Your task to perform on an android device: Is it going to rain today? Image 0: 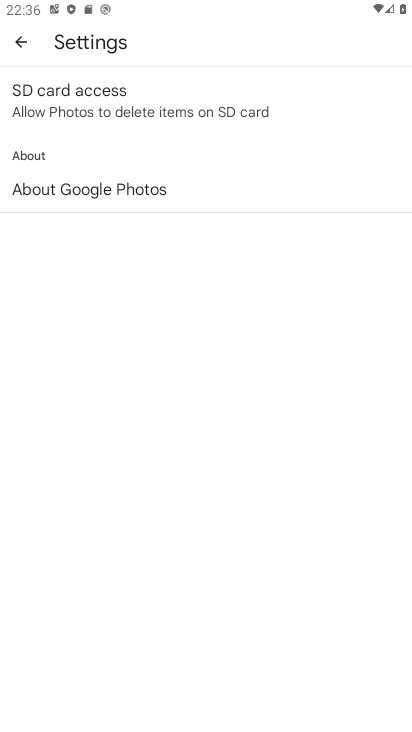
Step 0: press back button
Your task to perform on an android device: Is it going to rain today? Image 1: 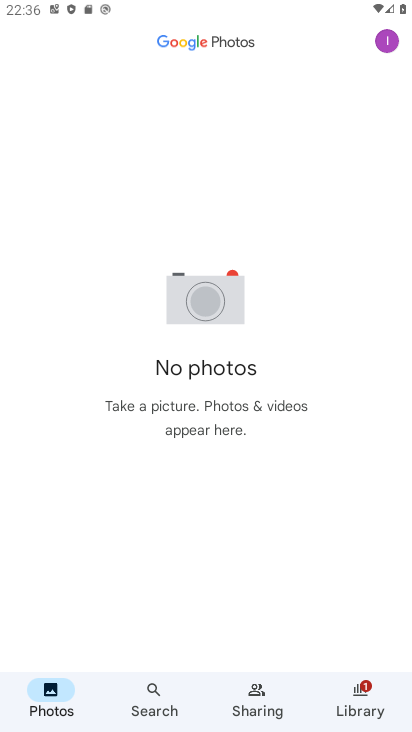
Step 1: press home button
Your task to perform on an android device: Is it going to rain today? Image 2: 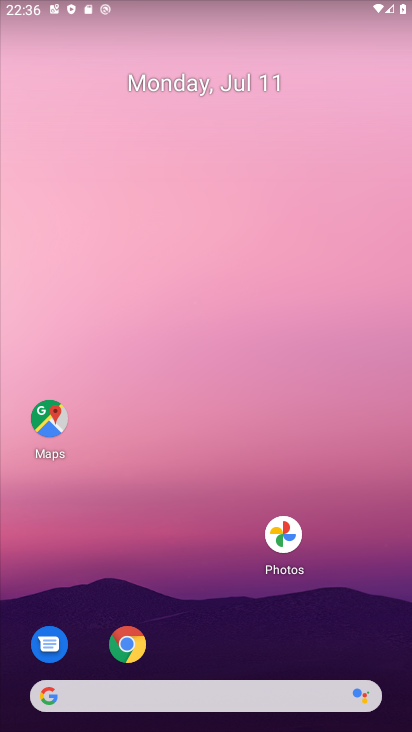
Step 2: press back button
Your task to perform on an android device: Is it going to rain today? Image 3: 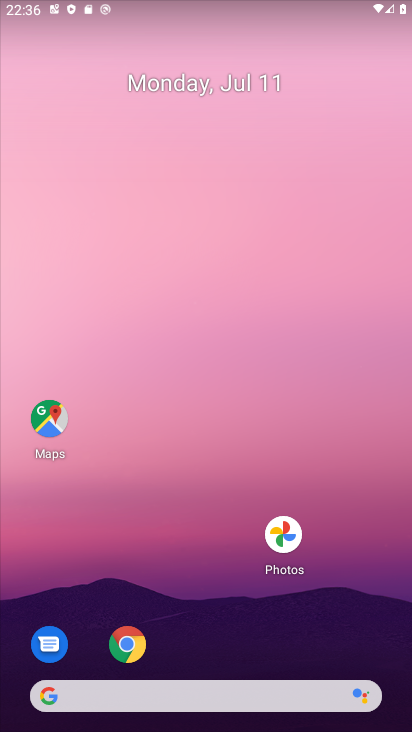
Step 3: drag from (262, 645) to (146, 199)
Your task to perform on an android device: Is it going to rain today? Image 4: 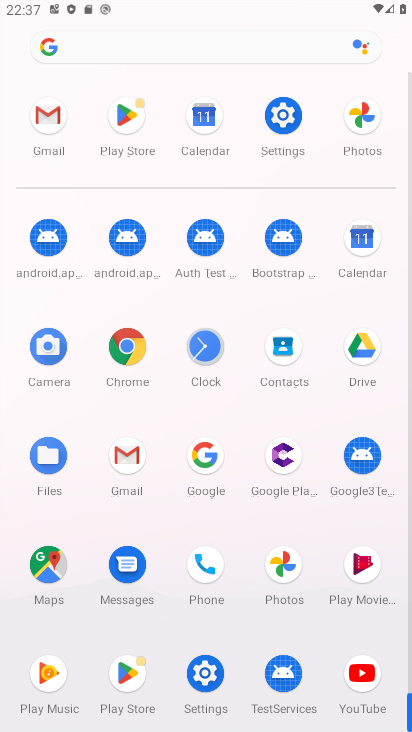
Step 4: click (117, 349)
Your task to perform on an android device: Is it going to rain today? Image 5: 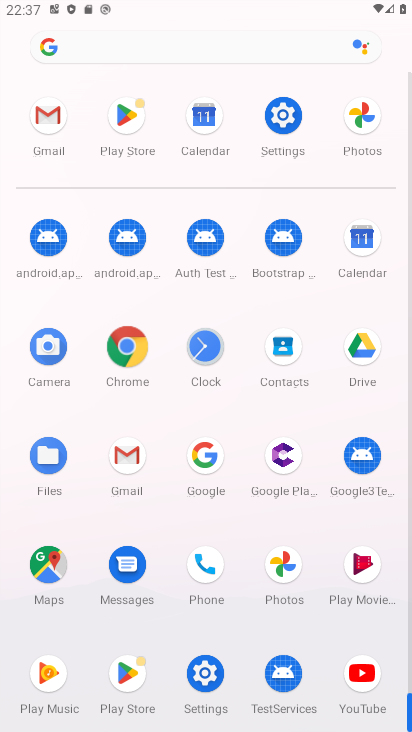
Step 5: click (117, 349)
Your task to perform on an android device: Is it going to rain today? Image 6: 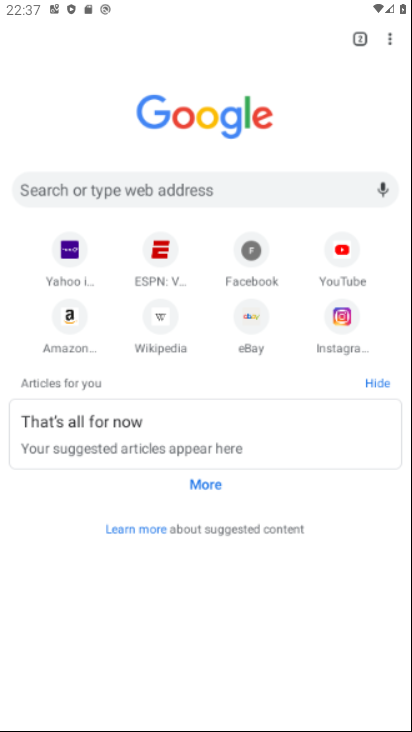
Step 6: click (117, 349)
Your task to perform on an android device: Is it going to rain today? Image 7: 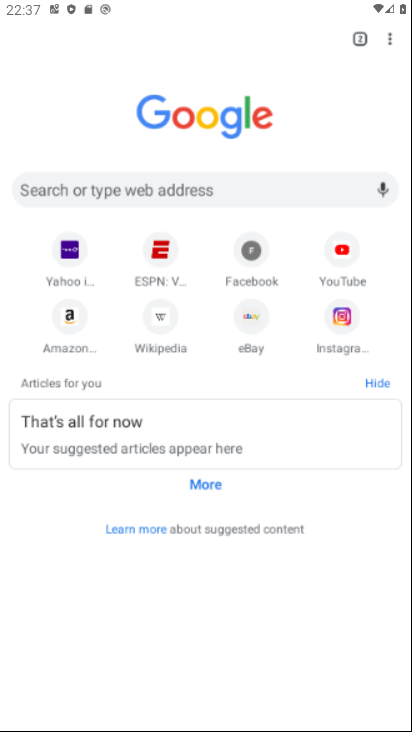
Step 7: click (114, 347)
Your task to perform on an android device: Is it going to rain today? Image 8: 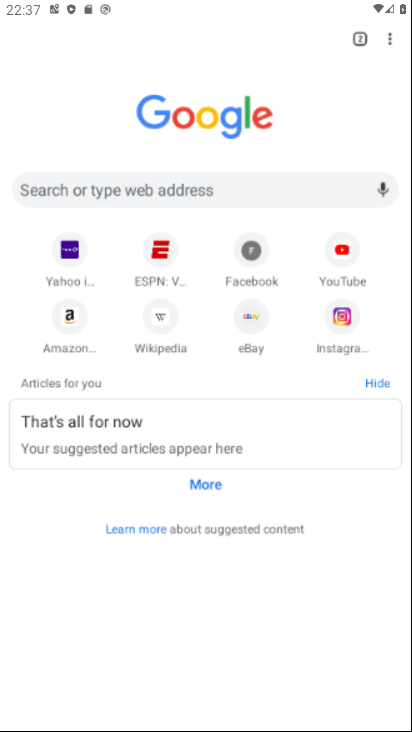
Step 8: click (113, 346)
Your task to perform on an android device: Is it going to rain today? Image 9: 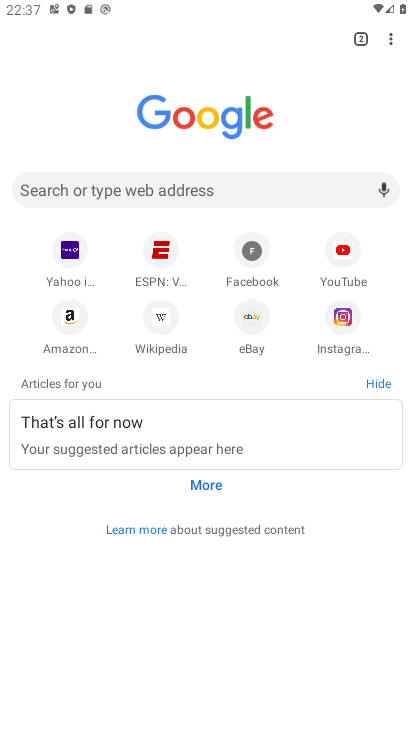
Step 9: click (96, 181)
Your task to perform on an android device: Is it going to rain today? Image 10: 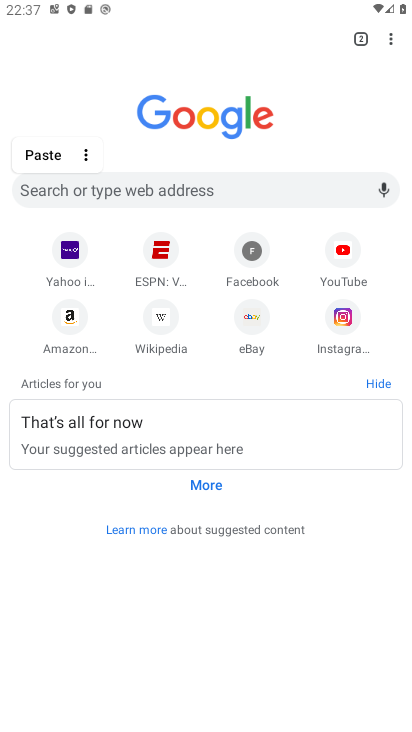
Step 10: type "is it going to rain today"
Your task to perform on an android device: Is it going to rain today? Image 11: 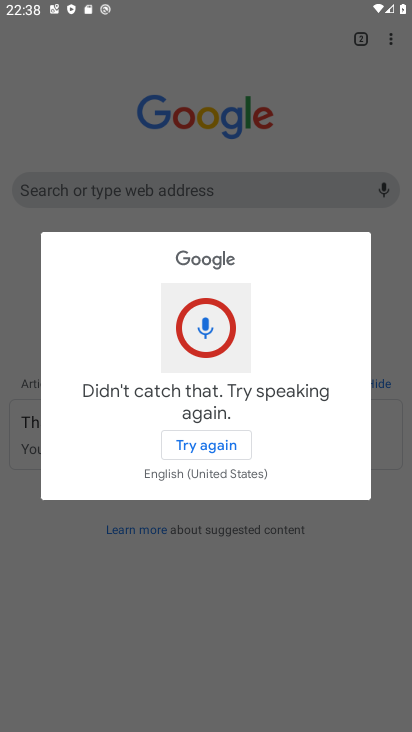
Step 11: click (78, 83)
Your task to perform on an android device: Is it going to rain today? Image 12: 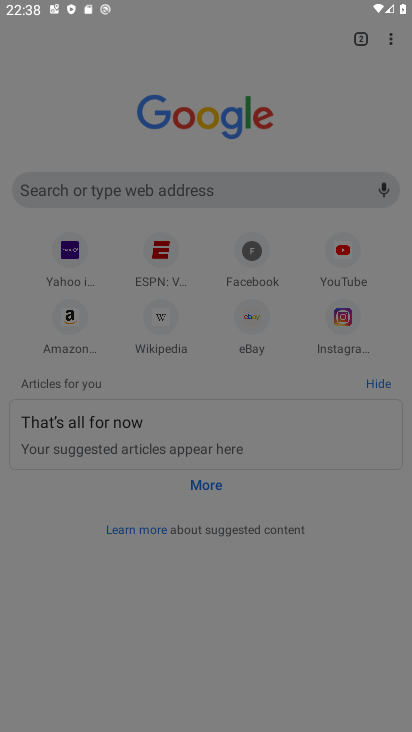
Step 12: click (77, 83)
Your task to perform on an android device: Is it going to rain today? Image 13: 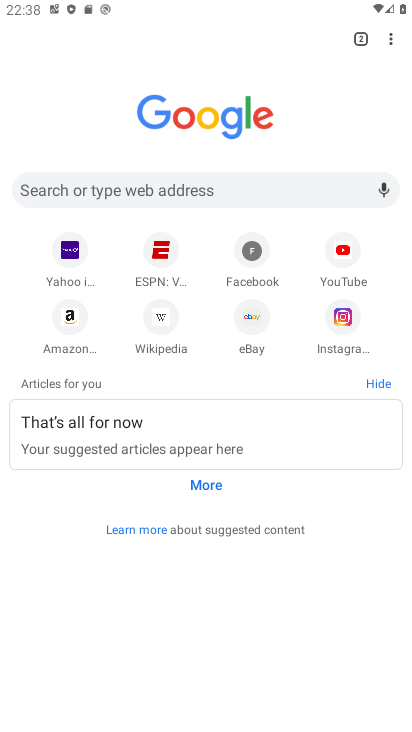
Step 13: click (77, 83)
Your task to perform on an android device: Is it going to rain today? Image 14: 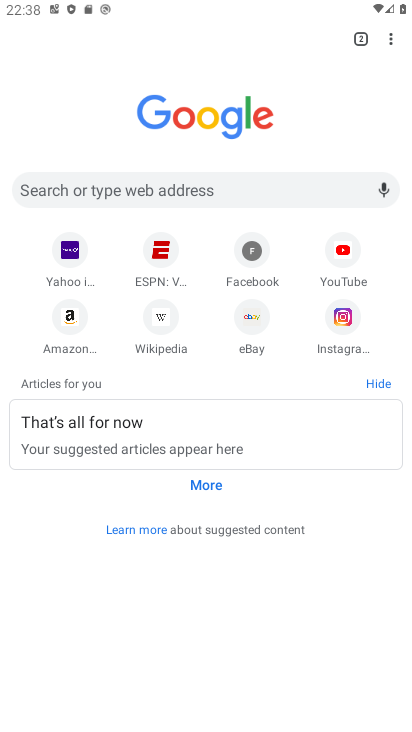
Step 14: click (77, 83)
Your task to perform on an android device: Is it going to rain today? Image 15: 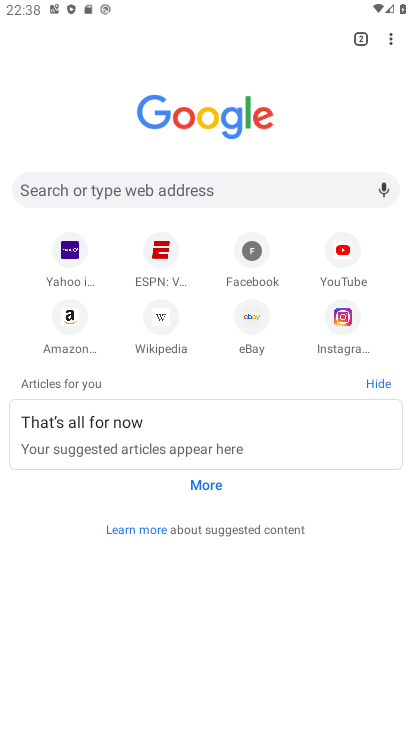
Step 15: click (241, 185)
Your task to perform on an android device: Is it going to rain today? Image 16: 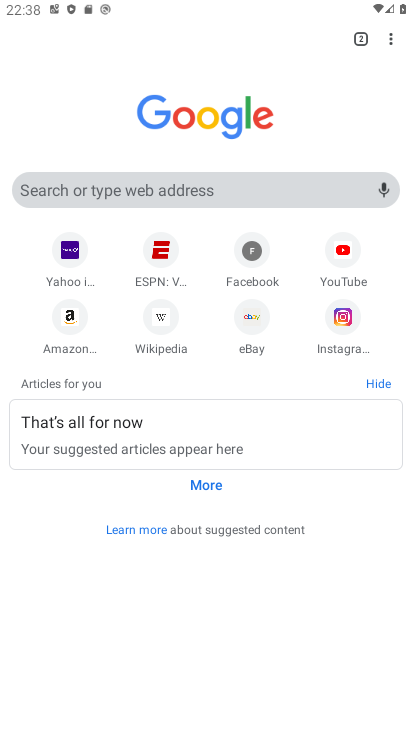
Step 16: click (242, 187)
Your task to perform on an android device: Is it going to rain today? Image 17: 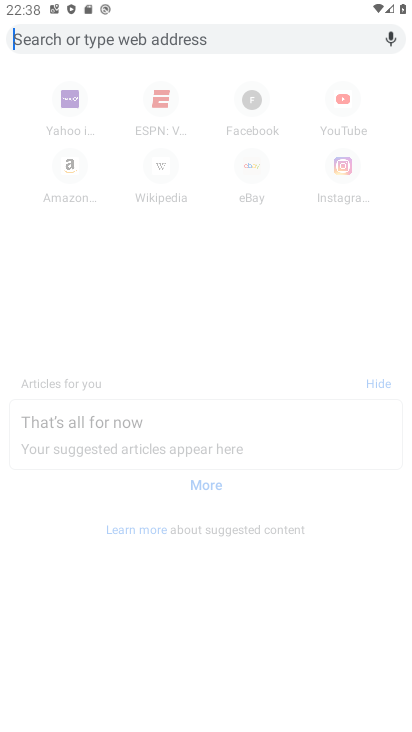
Step 17: click (242, 187)
Your task to perform on an android device: Is it going to rain today? Image 18: 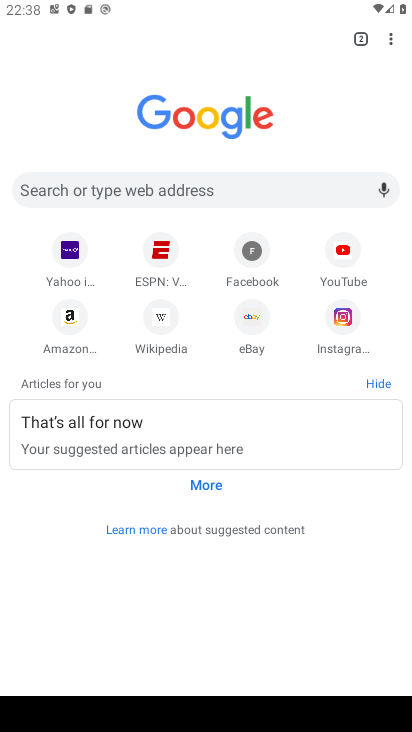
Step 18: click (242, 187)
Your task to perform on an android device: Is it going to rain today? Image 19: 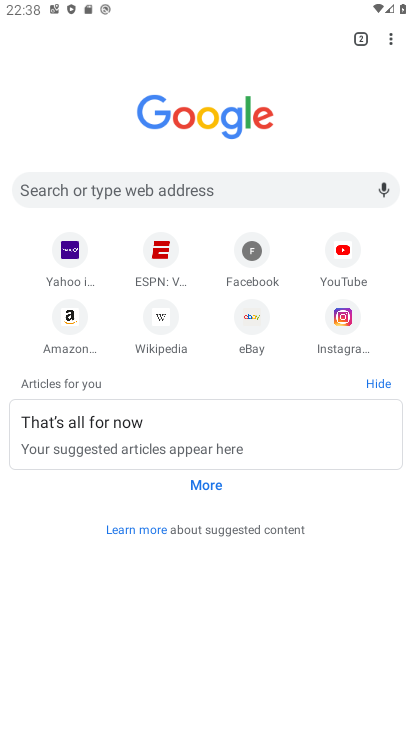
Step 19: type "is it going to rain today?"
Your task to perform on an android device: Is it going to rain today? Image 20: 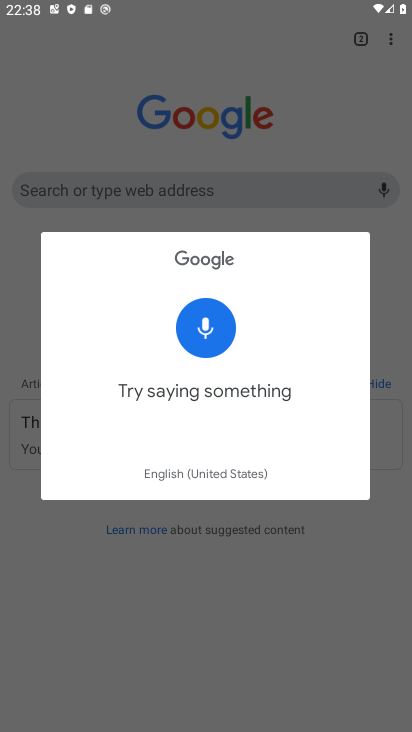
Step 20: task complete